Your task to perform on an android device: Search for a runner rug on Crate & Barrel. Image 0: 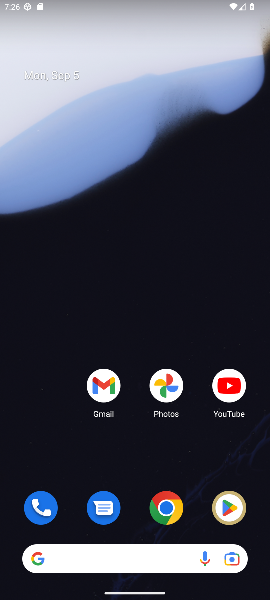
Step 0: click (172, 505)
Your task to perform on an android device: Search for a runner rug on Crate & Barrel. Image 1: 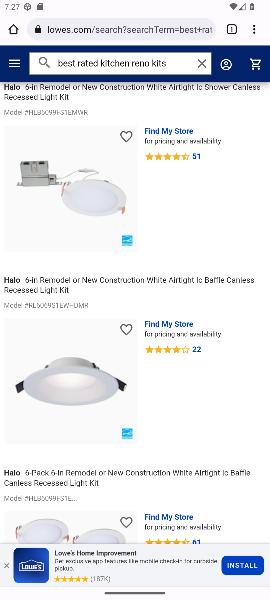
Step 1: click (189, 28)
Your task to perform on an android device: Search for a runner rug on Crate & Barrel. Image 2: 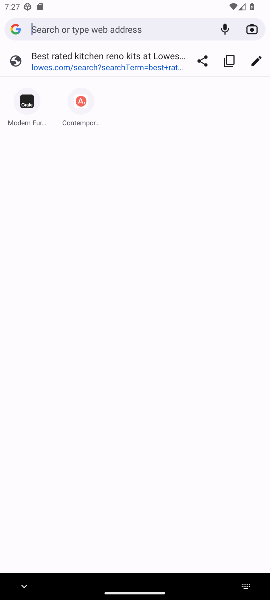
Step 2: type "Crate & Barrel."
Your task to perform on an android device: Search for a runner rug on Crate & Barrel. Image 3: 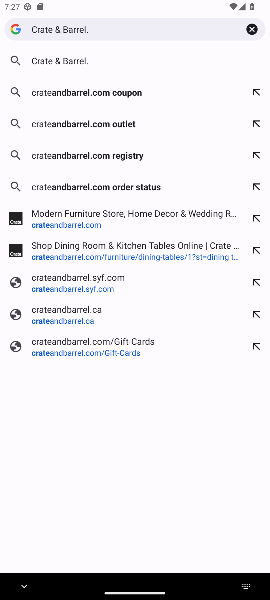
Step 3: click (71, 64)
Your task to perform on an android device: Search for a runner rug on Crate & Barrel. Image 4: 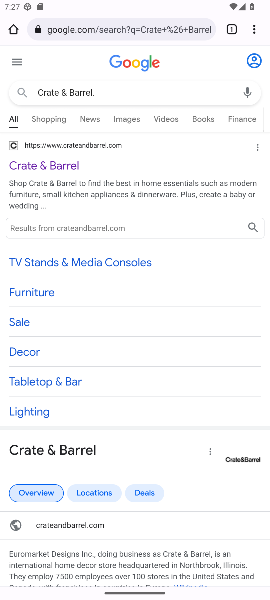
Step 4: click (33, 168)
Your task to perform on an android device: Search for a runner rug on Crate & Barrel. Image 5: 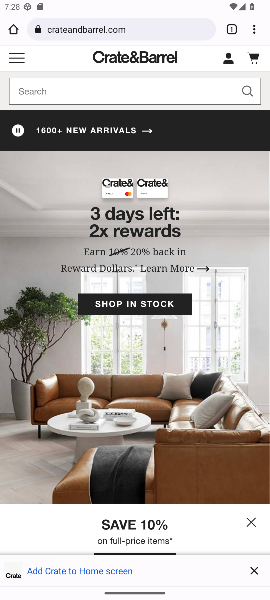
Step 5: click (245, 92)
Your task to perform on an android device: Search for a runner rug on Crate & Barrel. Image 6: 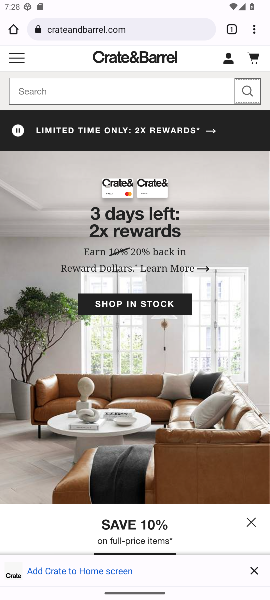
Step 6: type "runner rug"
Your task to perform on an android device: Search for a runner rug on Crate & Barrel. Image 7: 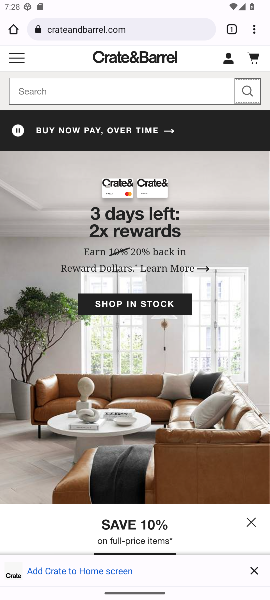
Step 7: click (150, 86)
Your task to perform on an android device: Search for a runner rug on Crate & Barrel. Image 8: 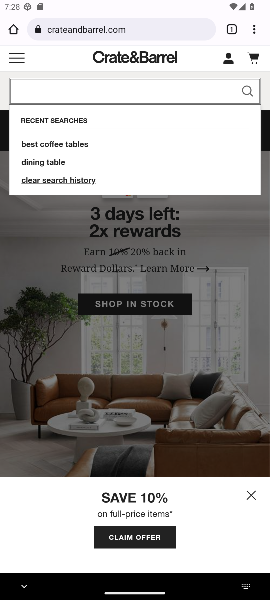
Step 8: type "runner rug"
Your task to perform on an android device: Search for a runner rug on Crate & Barrel. Image 9: 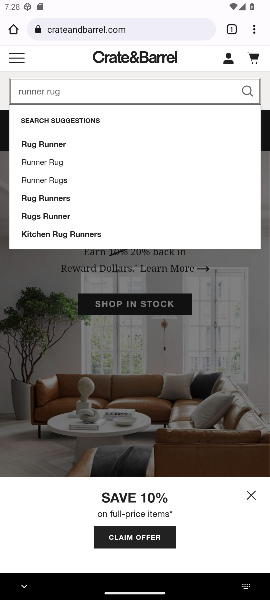
Step 9: click (247, 89)
Your task to perform on an android device: Search for a runner rug on Crate & Barrel. Image 10: 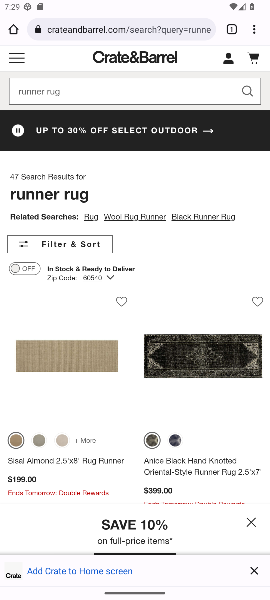
Step 10: task complete